Your task to perform on an android device: toggle show notifications on the lock screen Image 0: 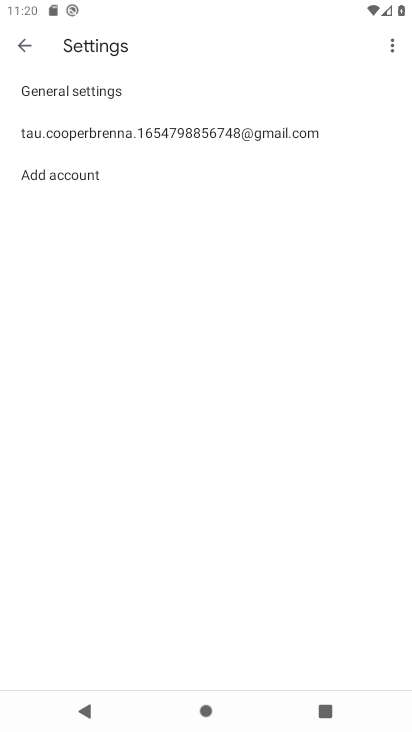
Step 0: press home button
Your task to perform on an android device: toggle show notifications on the lock screen Image 1: 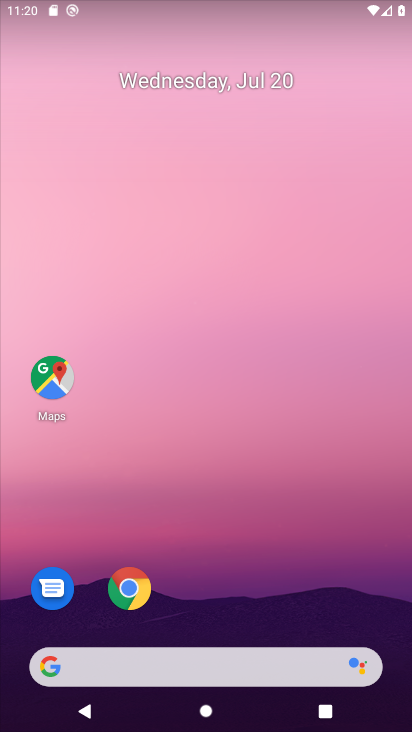
Step 1: drag from (225, 622) to (247, 16)
Your task to perform on an android device: toggle show notifications on the lock screen Image 2: 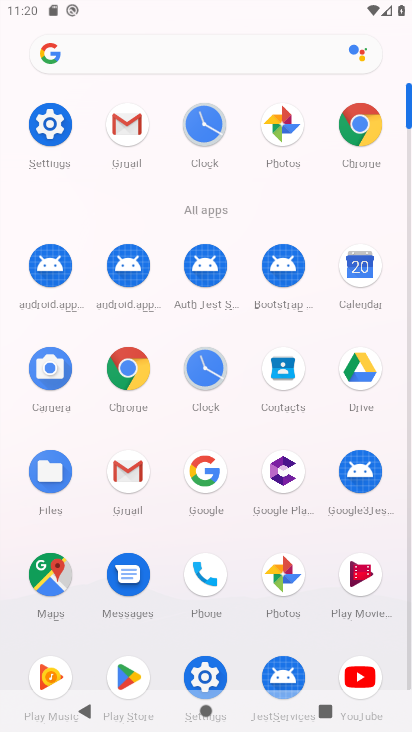
Step 2: click (48, 120)
Your task to perform on an android device: toggle show notifications on the lock screen Image 3: 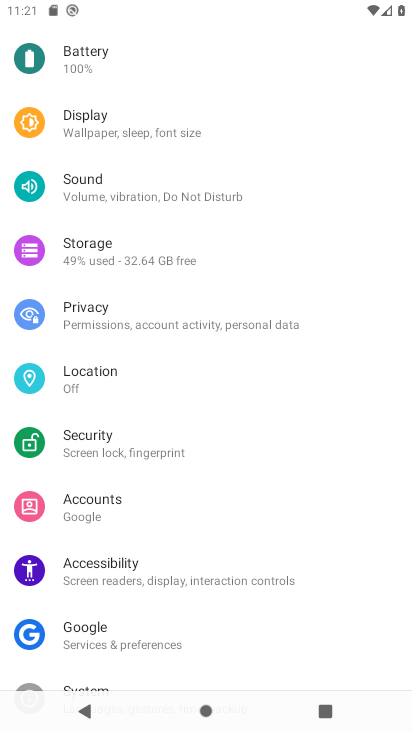
Step 3: drag from (144, 69) to (153, 520)
Your task to perform on an android device: toggle show notifications on the lock screen Image 4: 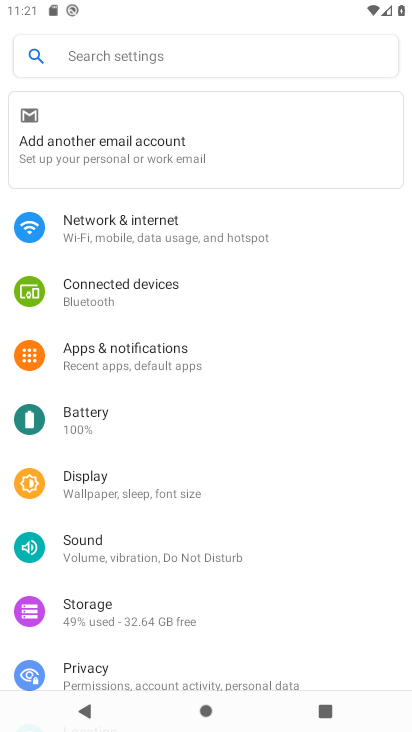
Step 4: click (214, 348)
Your task to perform on an android device: toggle show notifications on the lock screen Image 5: 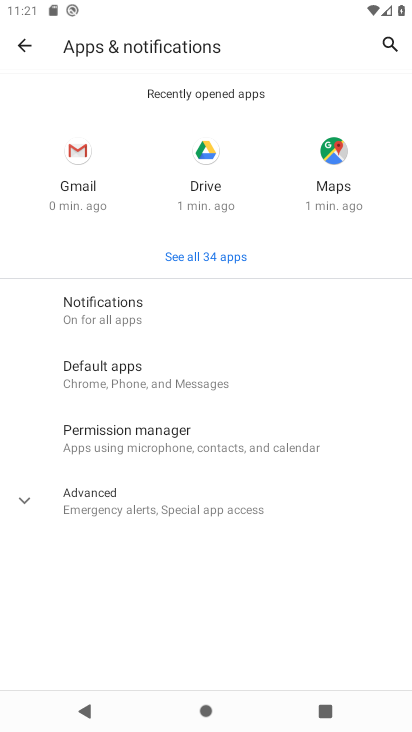
Step 5: click (159, 306)
Your task to perform on an android device: toggle show notifications on the lock screen Image 6: 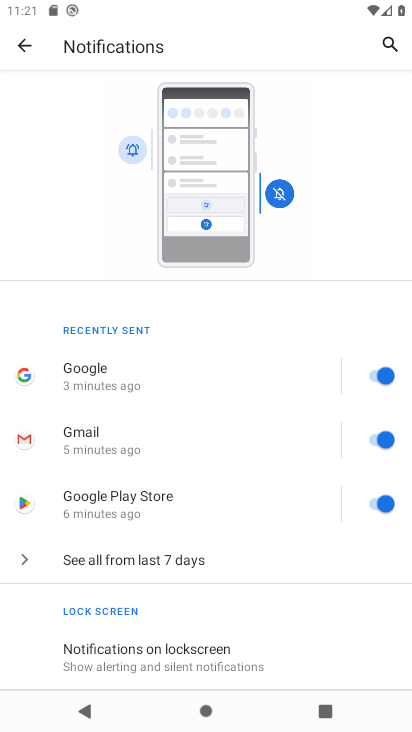
Step 6: click (245, 646)
Your task to perform on an android device: toggle show notifications on the lock screen Image 7: 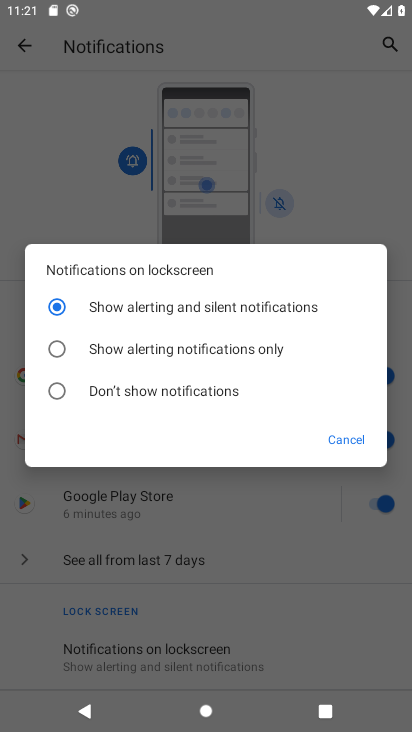
Step 7: click (59, 349)
Your task to perform on an android device: toggle show notifications on the lock screen Image 8: 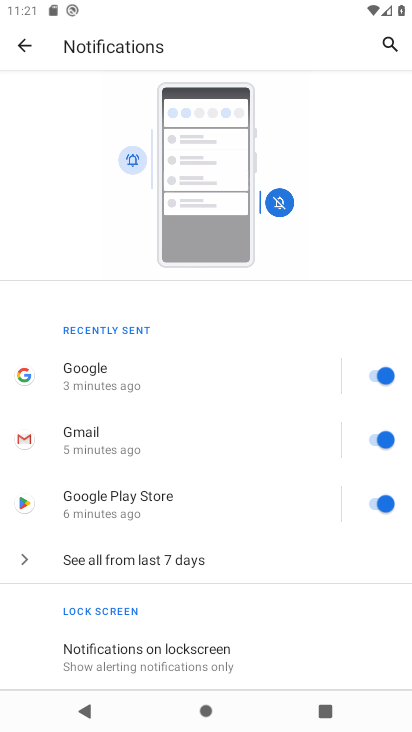
Step 8: task complete